Your task to perform on an android device: Search for pizza restaurants on Maps Image 0: 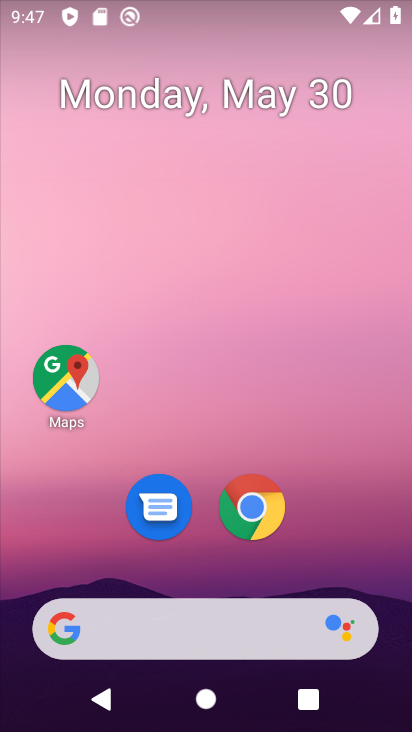
Step 0: click (68, 381)
Your task to perform on an android device: Search for pizza restaurants on Maps Image 1: 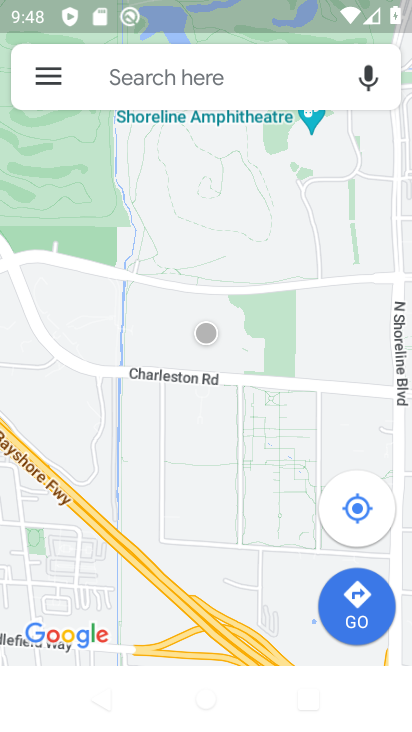
Step 1: click (216, 85)
Your task to perform on an android device: Search for pizza restaurants on Maps Image 2: 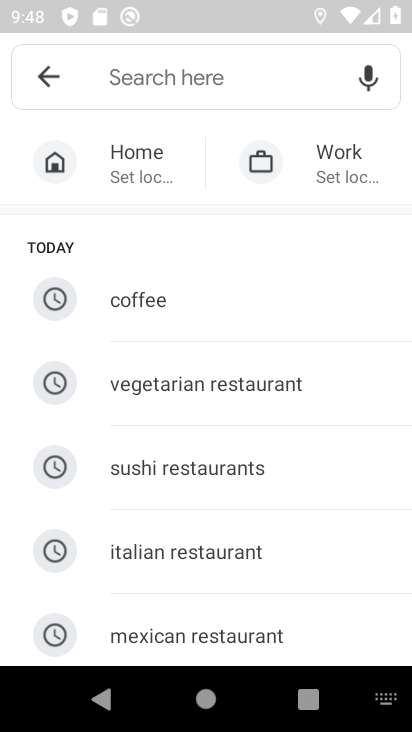
Step 2: type "pizza restaurants"
Your task to perform on an android device: Search for pizza restaurants on Maps Image 3: 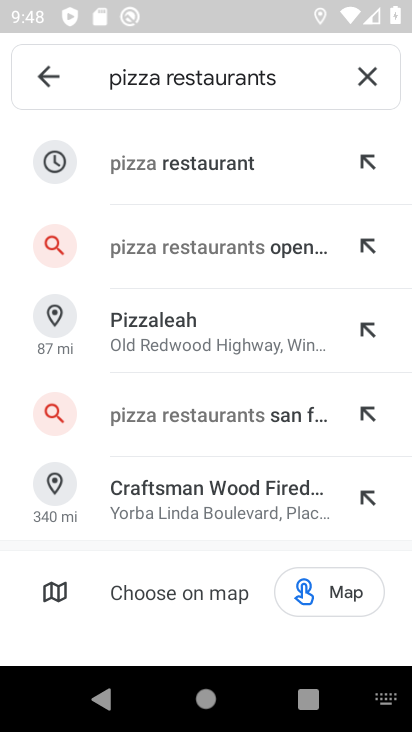
Step 3: click (191, 173)
Your task to perform on an android device: Search for pizza restaurants on Maps Image 4: 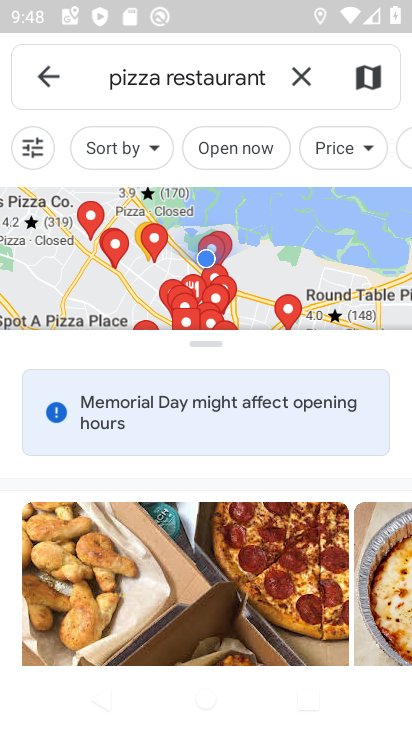
Step 4: task complete